Your task to perform on an android device: Open CNN.com Image 0: 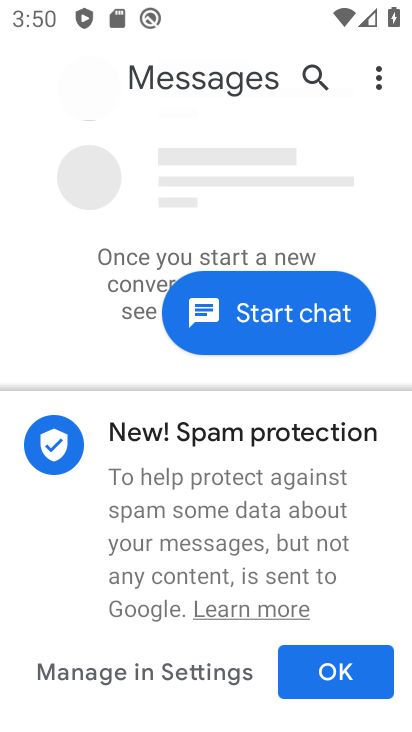
Step 0: press home button
Your task to perform on an android device: Open CNN.com Image 1: 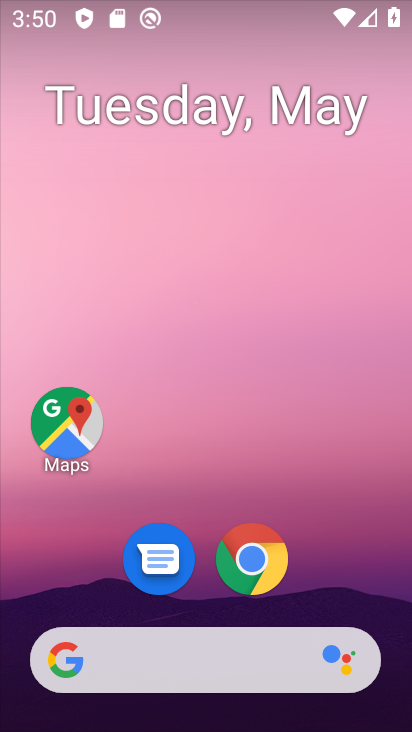
Step 1: click (268, 649)
Your task to perform on an android device: Open CNN.com Image 2: 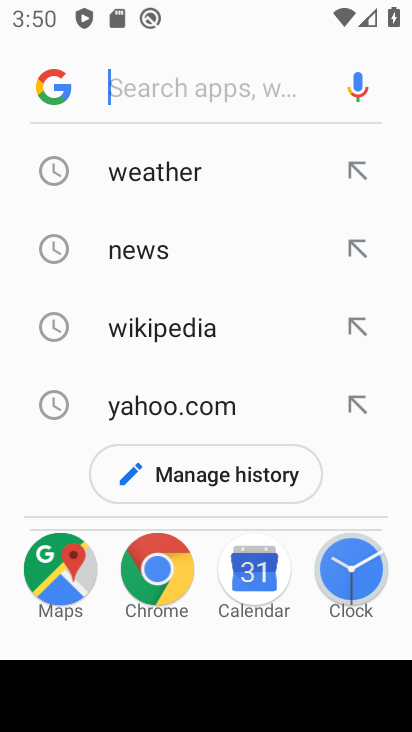
Step 2: press home button
Your task to perform on an android device: Open CNN.com Image 3: 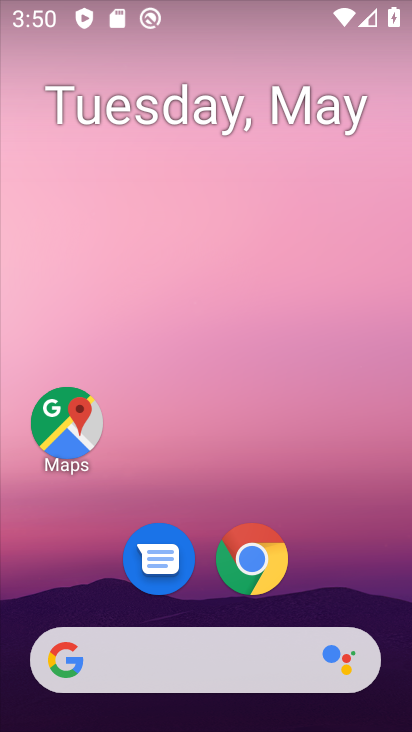
Step 3: click (280, 564)
Your task to perform on an android device: Open CNN.com Image 4: 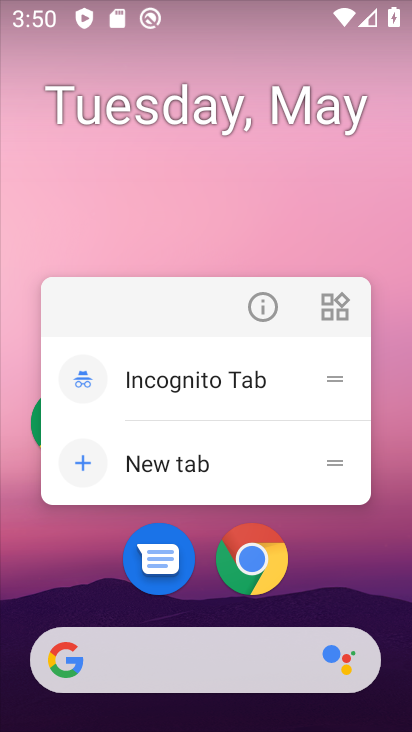
Step 4: click (238, 564)
Your task to perform on an android device: Open CNN.com Image 5: 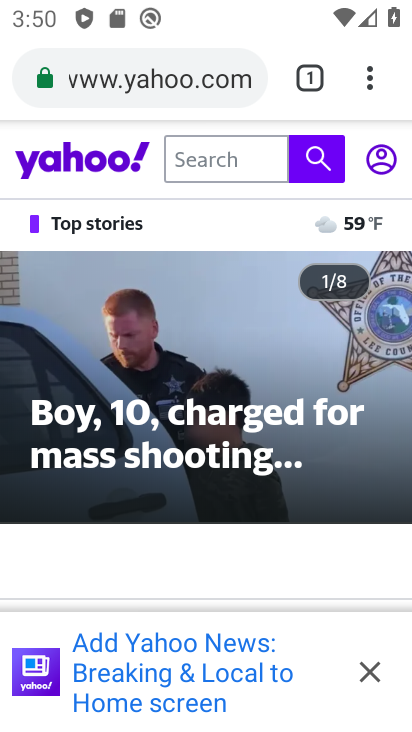
Step 5: click (173, 90)
Your task to perform on an android device: Open CNN.com Image 6: 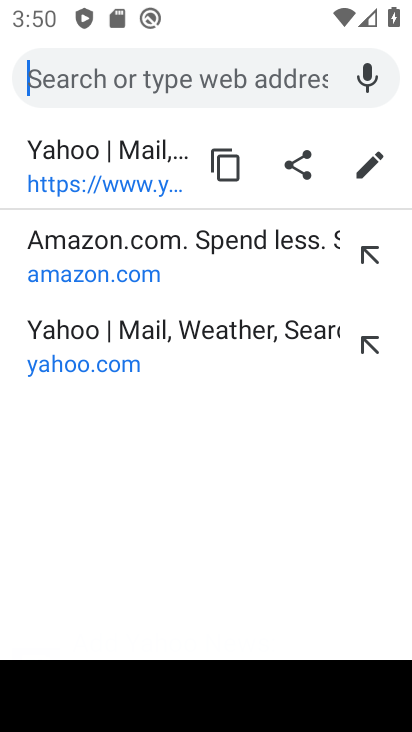
Step 6: type "cnn.com"
Your task to perform on an android device: Open CNN.com Image 7: 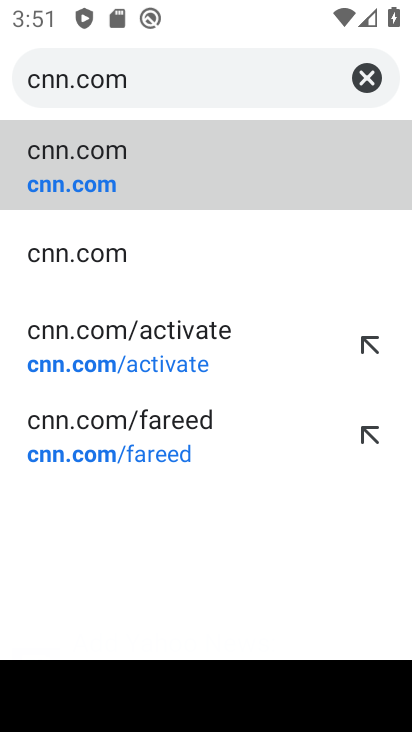
Step 7: click (78, 185)
Your task to perform on an android device: Open CNN.com Image 8: 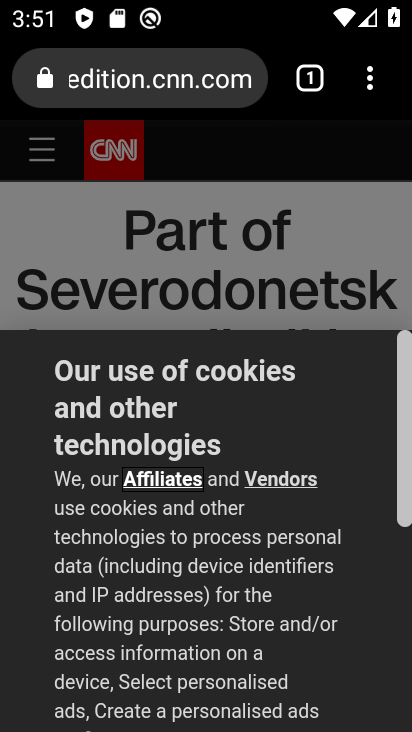
Step 8: task complete